Your task to perform on an android device: delete browsing data in the chrome app Image 0: 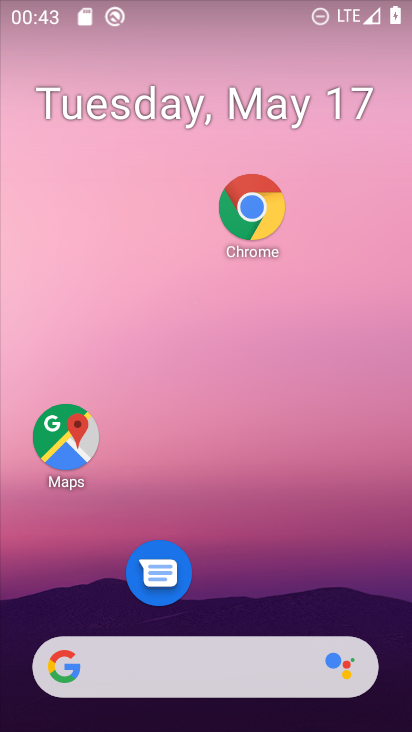
Step 0: drag from (302, 624) to (292, 60)
Your task to perform on an android device: delete browsing data in the chrome app Image 1: 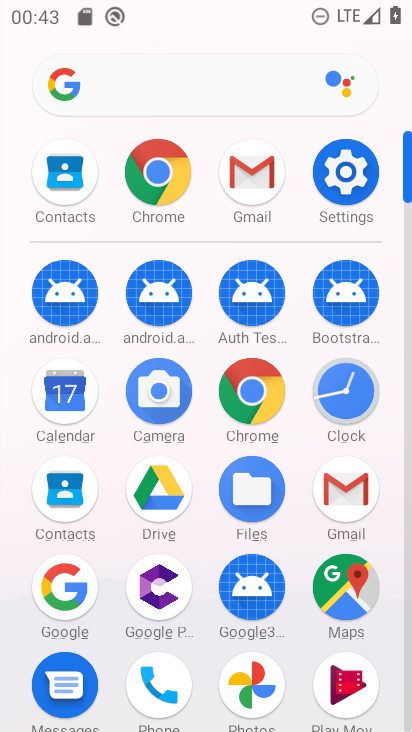
Step 1: click (256, 389)
Your task to perform on an android device: delete browsing data in the chrome app Image 2: 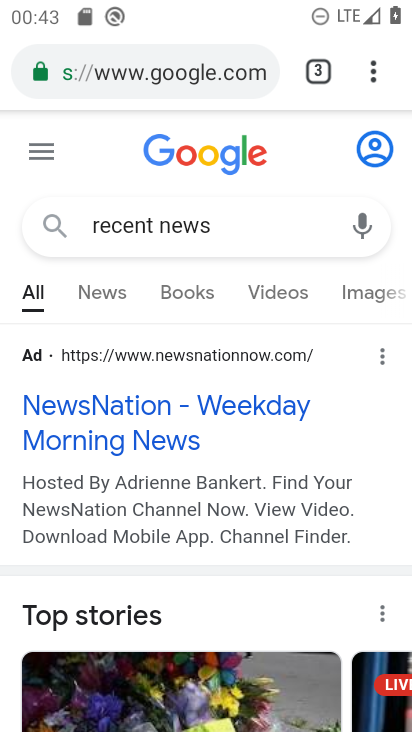
Step 2: click (364, 70)
Your task to perform on an android device: delete browsing data in the chrome app Image 3: 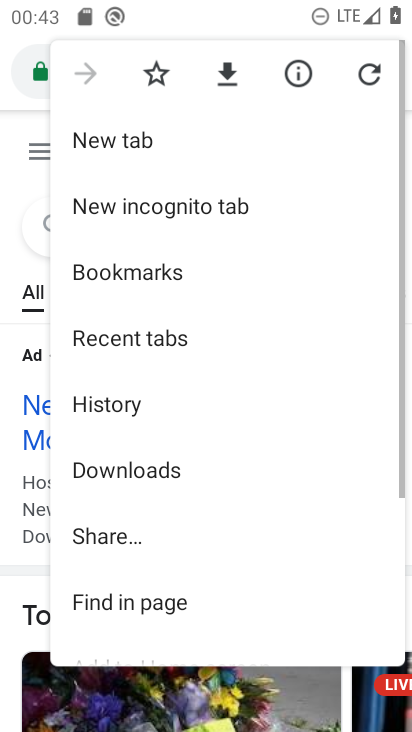
Step 3: drag from (221, 601) to (187, 42)
Your task to perform on an android device: delete browsing data in the chrome app Image 4: 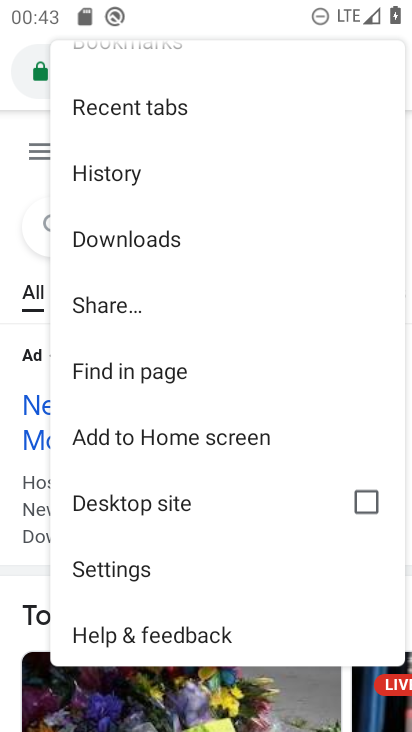
Step 4: click (156, 583)
Your task to perform on an android device: delete browsing data in the chrome app Image 5: 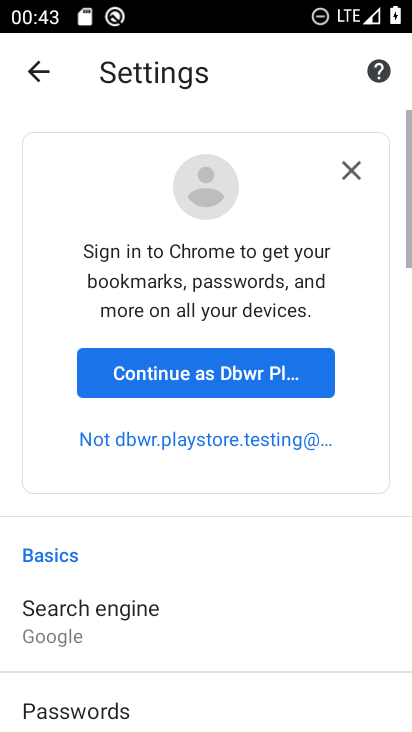
Step 5: drag from (217, 655) to (176, 149)
Your task to perform on an android device: delete browsing data in the chrome app Image 6: 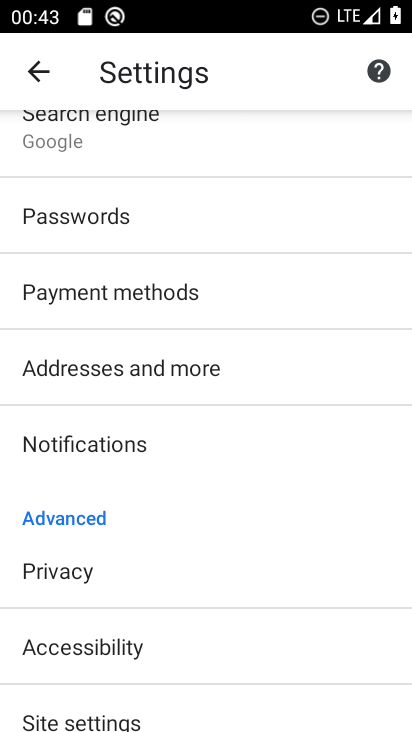
Step 6: click (155, 588)
Your task to perform on an android device: delete browsing data in the chrome app Image 7: 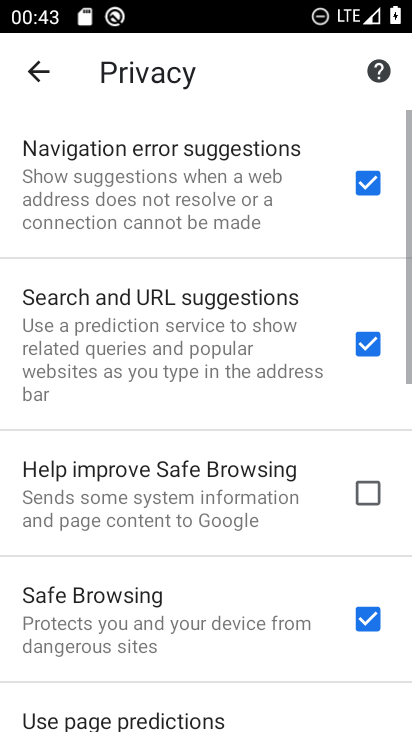
Step 7: drag from (240, 680) to (235, 7)
Your task to perform on an android device: delete browsing data in the chrome app Image 8: 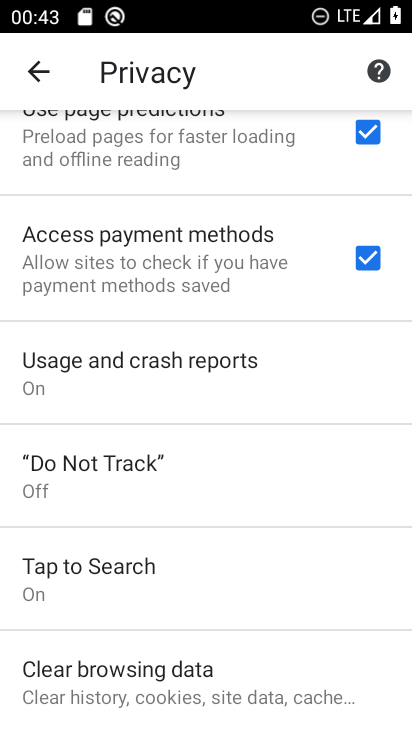
Step 8: click (214, 700)
Your task to perform on an android device: delete browsing data in the chrome app Image 9: 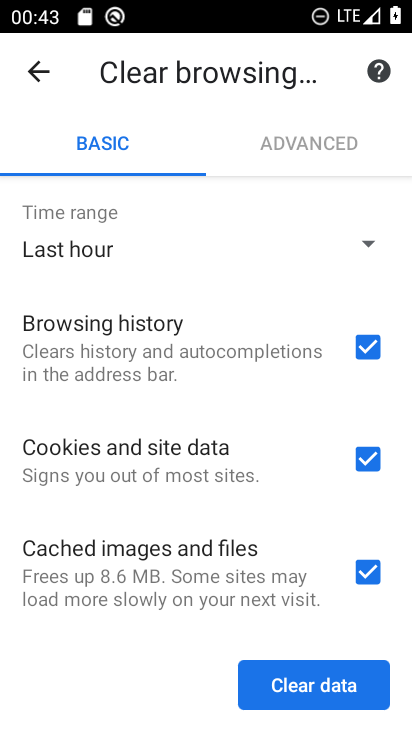
Step 9: click (363, 672)
Your task to perform on an android device: delete browsing data in the chrome app Image 10: 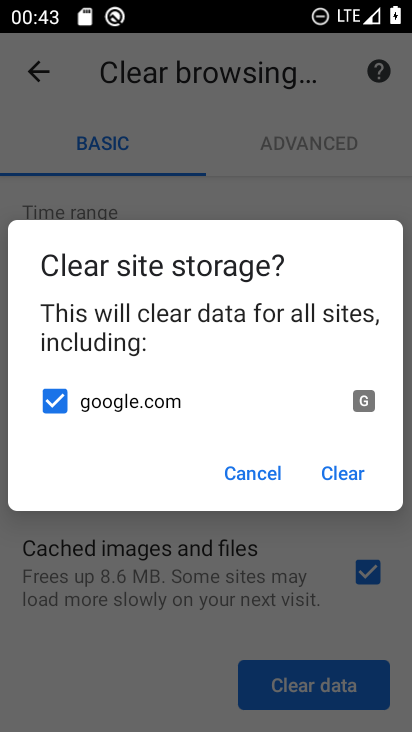
Step 10: click (344, 474)
Your task to perform on an android device: delete browsing data in the chrome app Image 11: 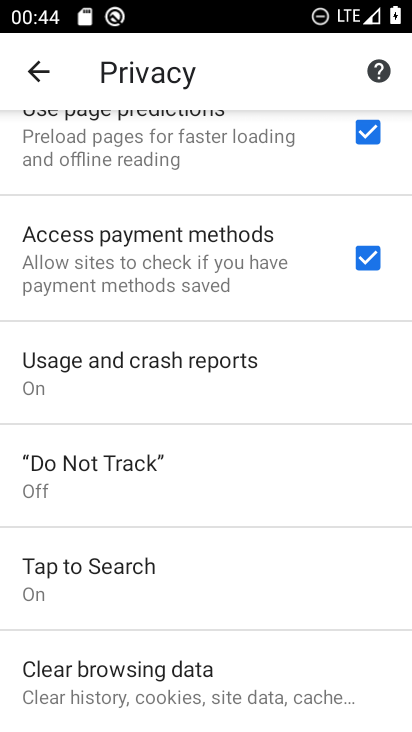
Step 11: task complete